Your task to perform on an android device: remove spam from my inbox in the gmail app Image 0: 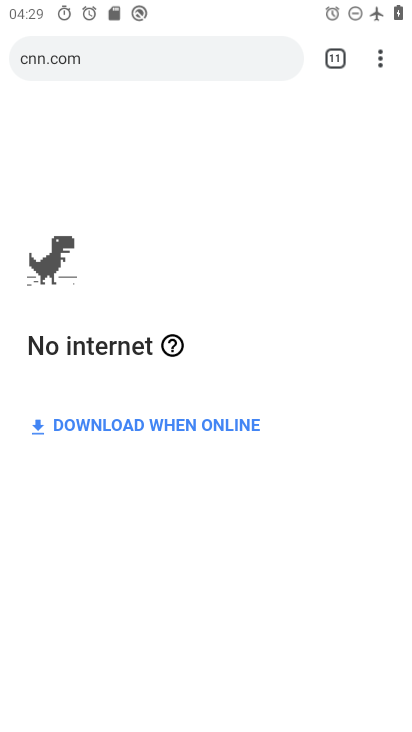
Step 0: press home button
Your task to perform on an android device: remove spam from my inbox in the gmail app Image 1: 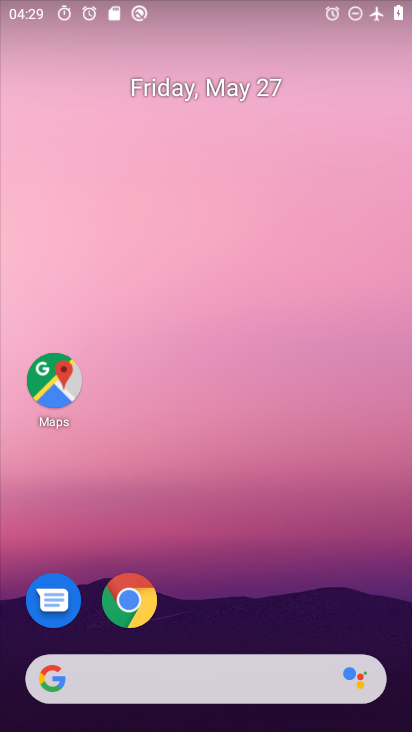
Step 1: drag from (212, 718) to (215, 63)
Your task to perform on an android device: remove spam from my inbox in the gmail app Image 2: 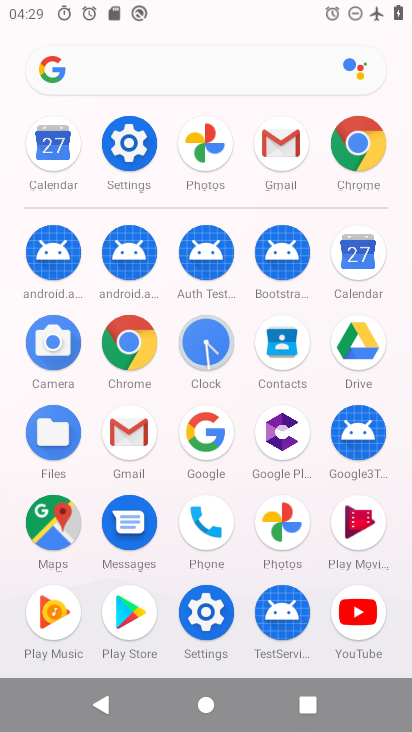
Step 2: click (129, 148)
Your task to perform on an android device: remove spam from my inbox in the gmail app Image 3: 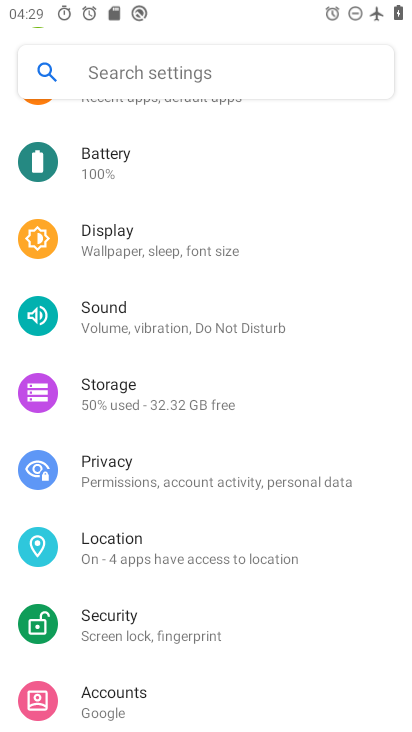
Step 3: drag from (187, 186) to (210, 551)
Your task to perform on an android device: remove spam from my inbox in the gmail app Image 4: 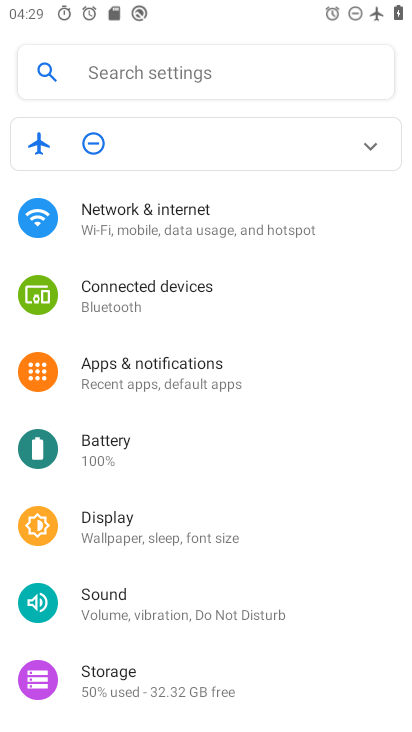
Step 4: click (155, 223)
Your task to perform on an android device: remove spam from my inbox in the gmail app Image 5: 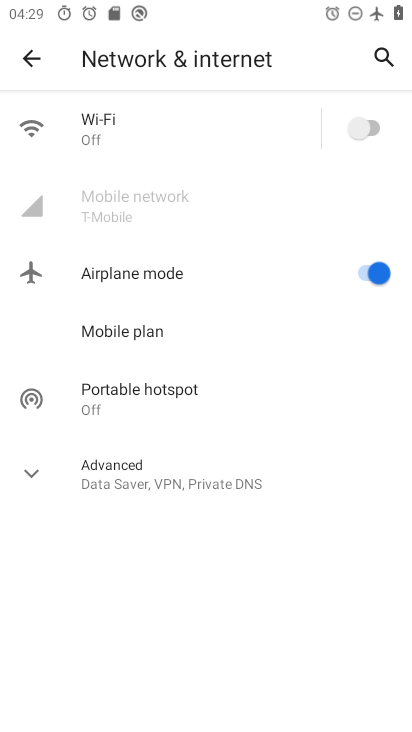
Step 5: click (375, 265)
Your task to perform on an android device: remove spam from my inbox in the gmail app Image 6: 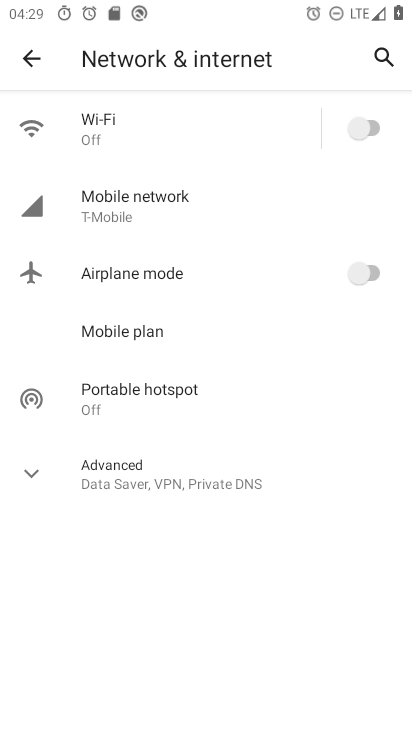
Step 6: press home button
Your task to perform on an android device: remove spam from my inbox in the gmail app Image 7: 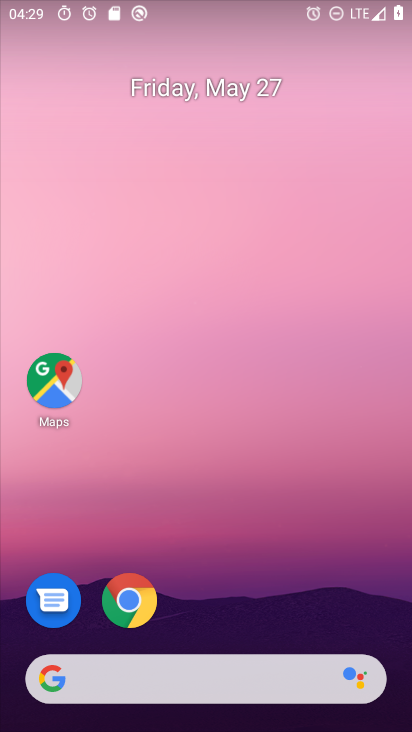
Step 7: drag from (218, 705) to (213, 128)
Your task to perform on an android device: remove spam from my inbox in the gmail app Image 8: 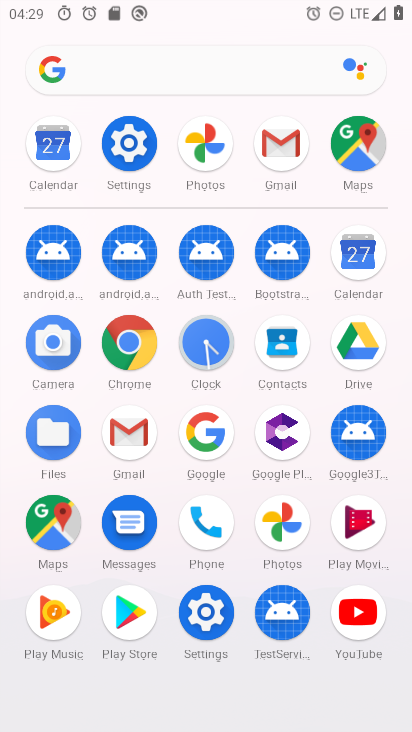
Step 8: click (132, 433)
Your task to perform on an android device: remove spam from my inbox in the gmail app Image 9: 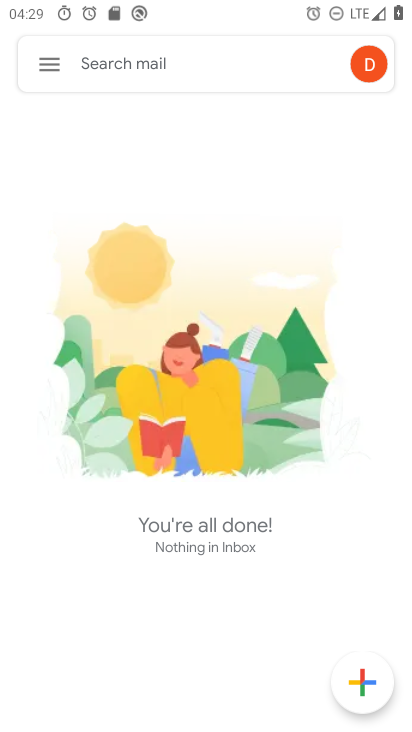
Step 9: click (52, 65)
Your task to perform on an android device: remove spam from my inbox in the gmail app Image 10: 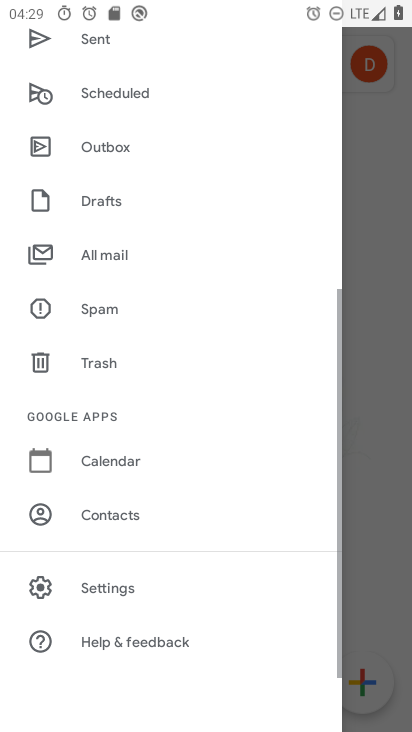
Step 10: drag from (125, 83) to (122, 602)
Your task to perform on an android device: remove spam from my inbox in the gmail app Image 11: 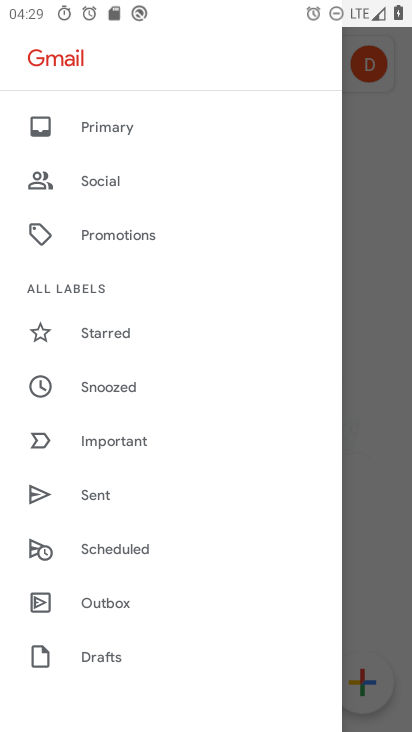
Step 11: click (89, 130)
Your task to perform on an android device: remove spam from my inbox in the gmail app Image 12: 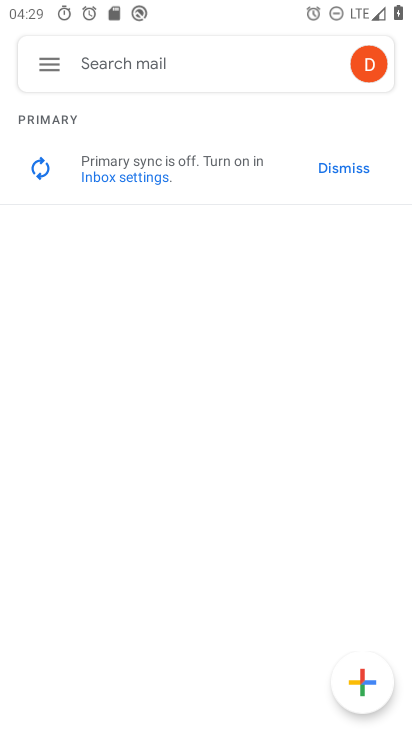
Step 12: task complete